Your task to perform on an android device: turn off wifi Image 0: 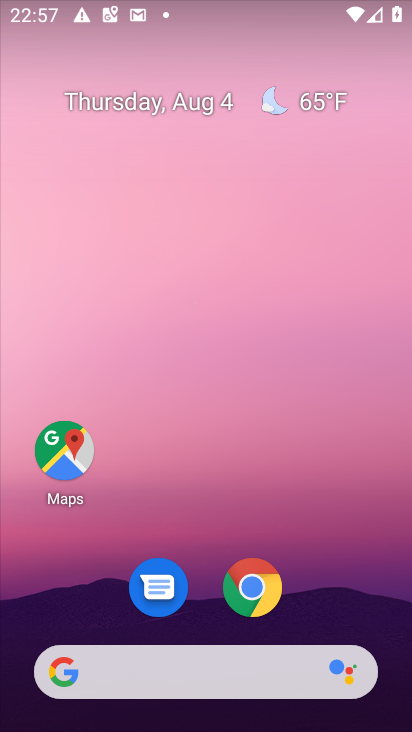
Step 0: drag from (222, 629) to (219, 204)
Your task to perform on an android device: turn off wifi Image 1: 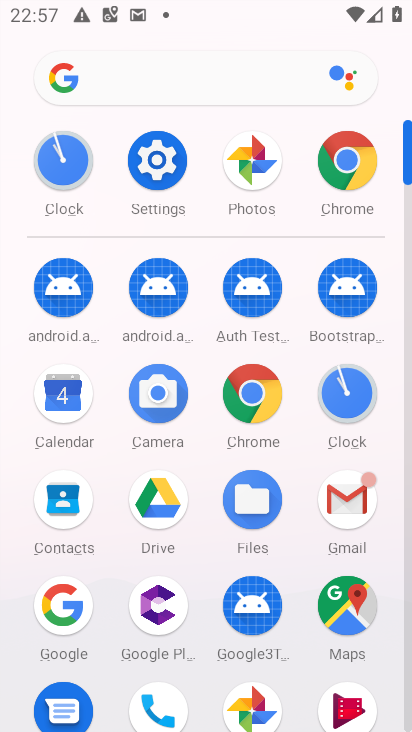
Step 1: click (170, 160)
Your task to perform on an android device: turn off wifi Image 2: 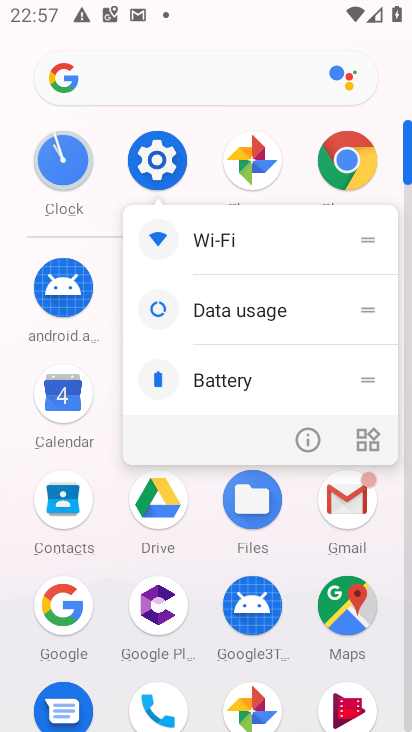
Step 2: click (210, 246)
Your task to perform on an android device: turn off wifi Image 3: 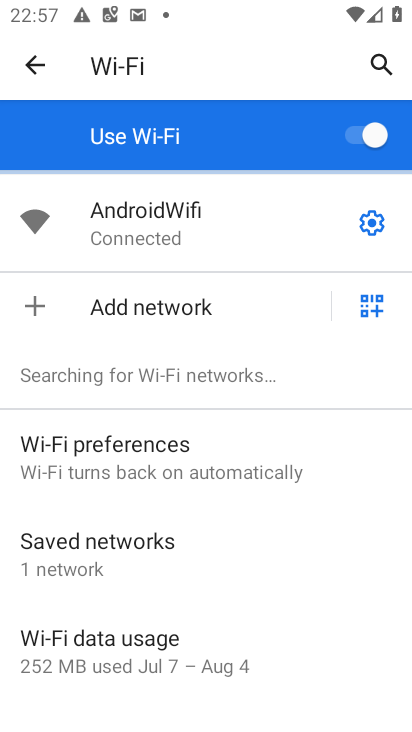
Step 3: click (346, 139)
Your task to perform on an android device: turn off wifi Image 4: 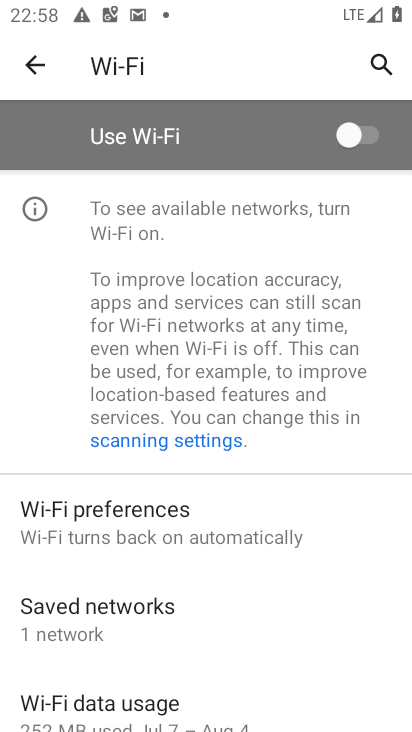
Step 4: task complete